Your task to perform on an android device: Add "razer blade" to the cart on costco, then select checkout. Image 0: 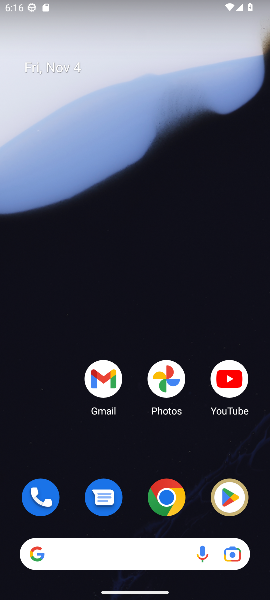
Step 0: click (171, 498)
Your task to perform on an android device: Add "razer blade" to the cart on costco, then select checkout. Image 1: 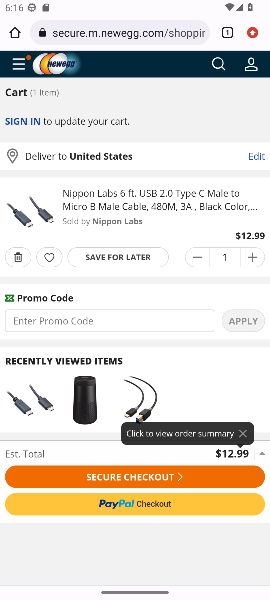
Step 1: click (125, 40)
Your task to perform on an android device: Add "razer blade" to the cart on costco, then select checkout. Image 2: 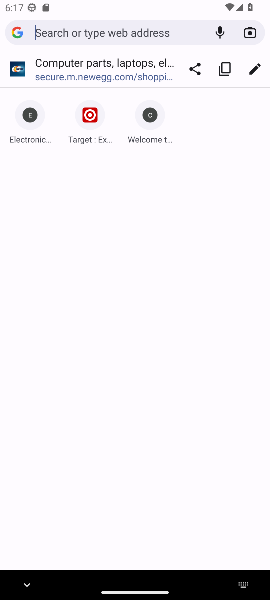
Step 2: click (82, 30)
Your task to perform on an android device: Add "razer blade" to the cart on costco, then select checkout. Image 3: 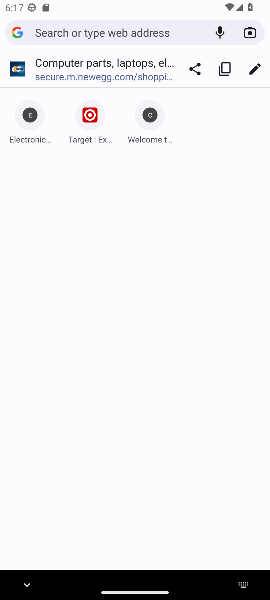
Step 3: type "costco.com"
Your task to perform on an android device: Add "razer blade" to the cart on costco, then select checkout. Image 4: 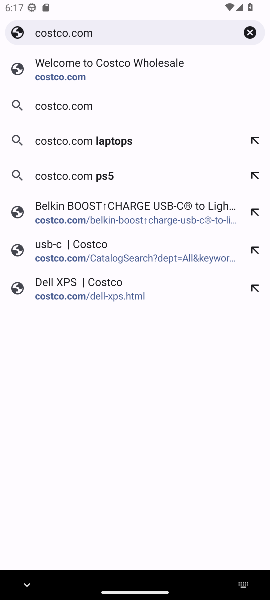
Step 4: click (70, 78)
Your task to perform on an android device: Add "razer blade" to the cart on costco, then select checkout. Image 5: 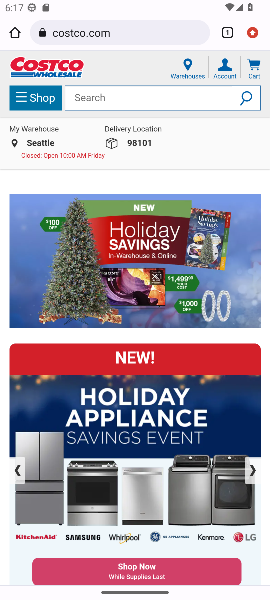
Step 5: click (100, 100)
Your task to perform on an android device: Add "razer blade" to the cart on costco, then select checkout. Image 6: 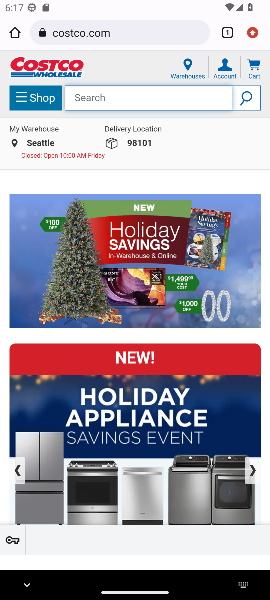
Step 6: type "razer blade"
Your task to perform on an android device: Add "razer blade" to the cart on costco, then select checkout. Image 7: 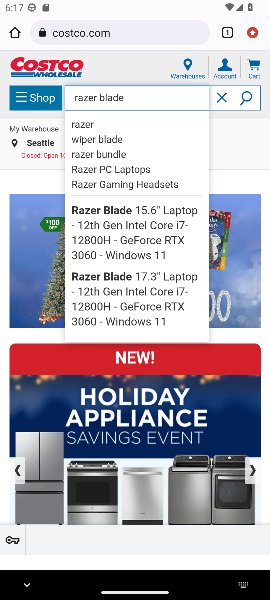
Step 7: click (248, 100)
Your task to perform on an android device: Add "razer blade" to the cart on costco, then select checkout. Image 8: 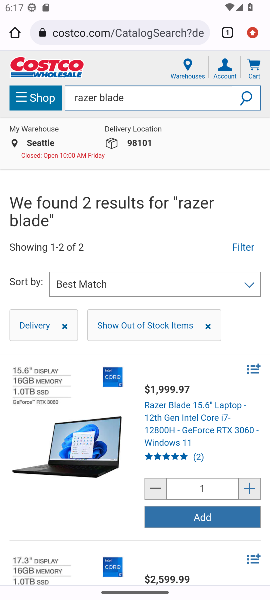
Step 8: click (172, 425)
Your task to perform on an android device: Add "razer blade" to the cart on costco, then select checkout. Image 9: 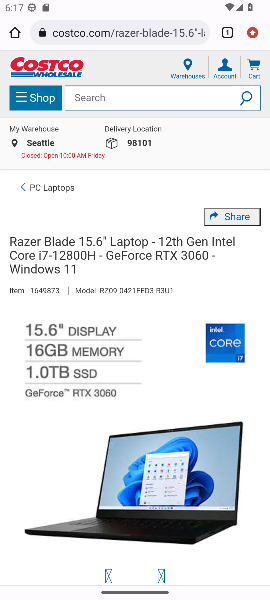
Step 9: drag from (120, 443) to (114, 186)
Your task to perform on an android device: Add "razer blade" to the cart on costco, then select checkout. Image 10: 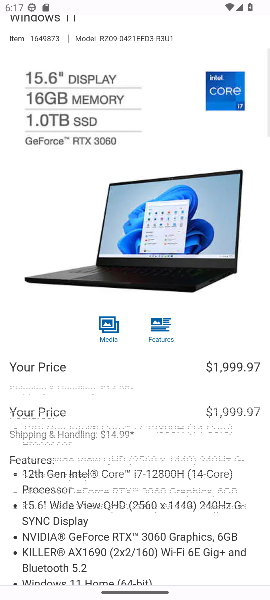
Step 10: drag from (128, 495) to (116, 244)
Your task to perform on an android device: Add "razer blade" to the cart on costco, then select checkout. Image 11: 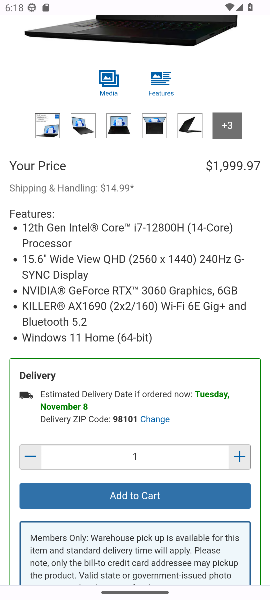
Step 11: click (141, 498)
Your task to perform on an android device: Add "razer blade" to the cart on costco, then select checkout. Image 12: 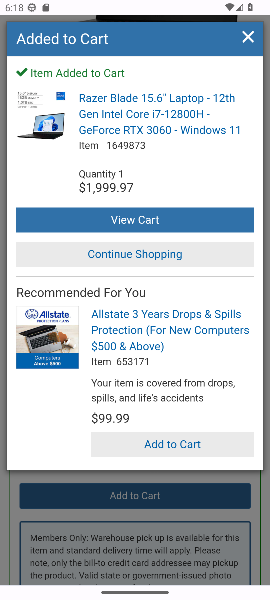
Step 12: click (116, 224)
Your task to perform on an android device: Add "razer blade" to the cart on costco, then select checkout. Image 13: 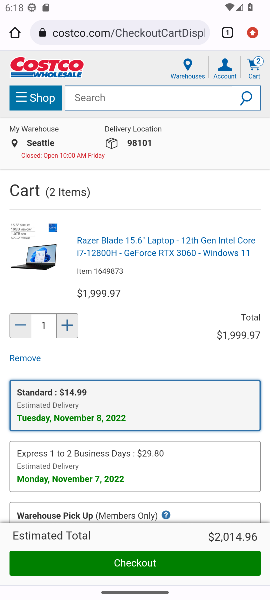
Step 13: click (137, 565)
Your task to perform on an android device: Add "razer blade" to the cart on costco, then select checkout. Image 14: 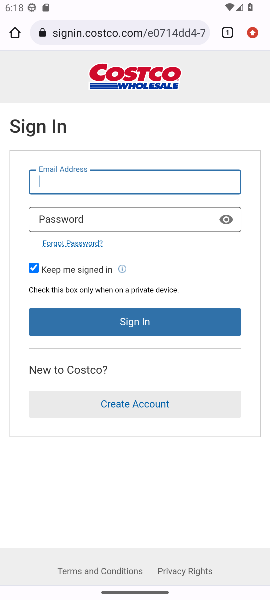
Step 14: task complete